Your task to perform on an android device: turn on sleep mode Image 0: 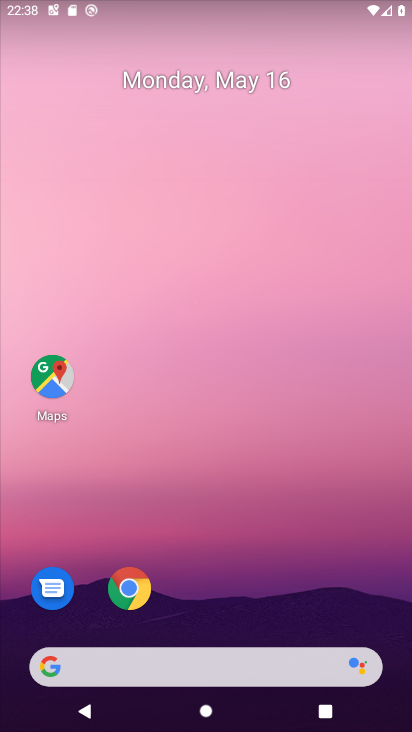
Step 0: drag from (211, 641) to (264, 22)
Your task to perform on an android device: turn on sleep mode Image 1: 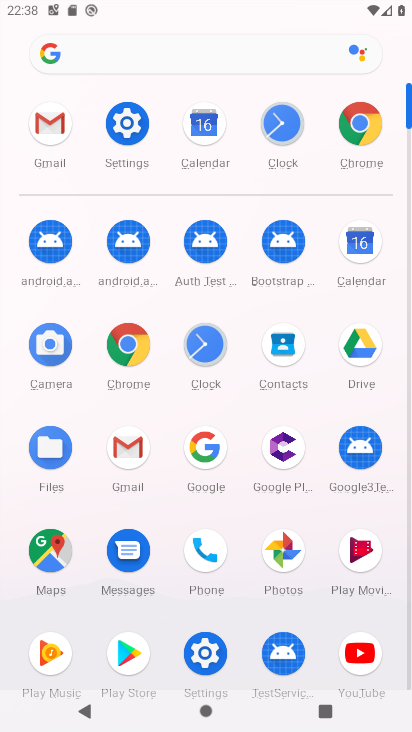
Step 1: click (124, 118)
Your task to perform on an android device: turn on sleep mode Image 2: 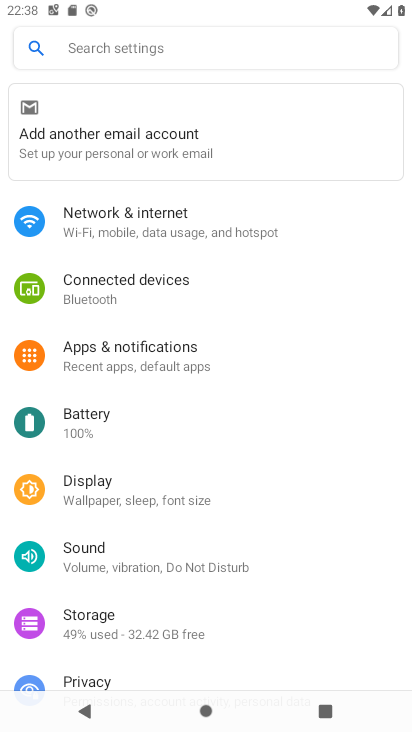
Step 2: click (130, 482)
Your task to perform on an android device: turn on sleep mode Image 3: 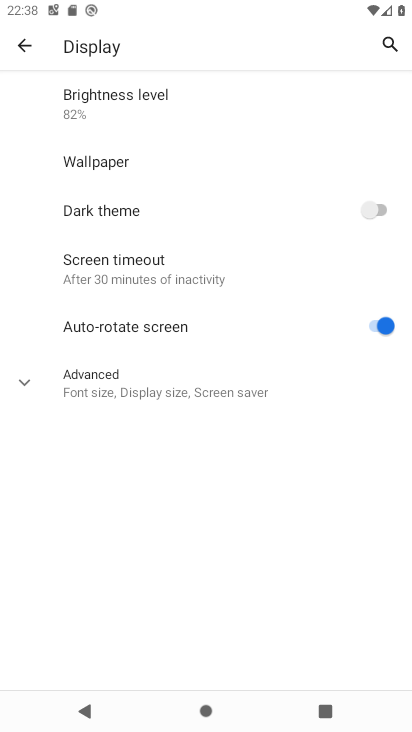
Step 3: click (32, 377)
Your task to perform on an android device: turn on sleep mode Image 4: 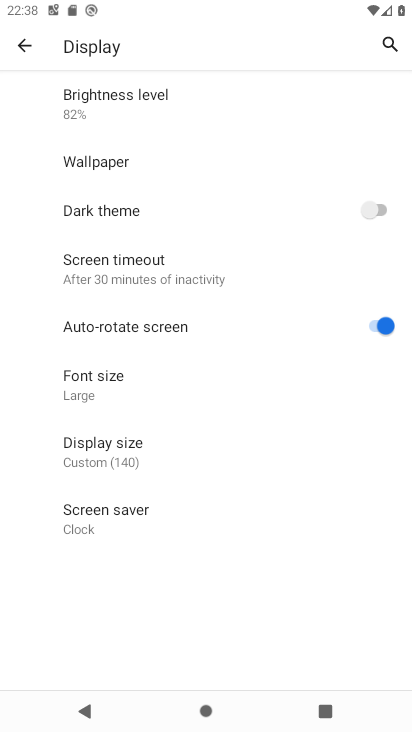
Step 4: task complete